Your task to perform on an android device: turn on data saver in the chrome app Image 0: 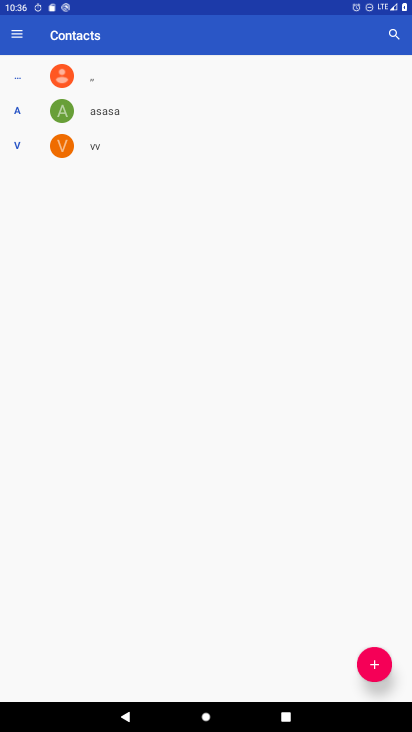
Step 0: press home button
Your task to perform on an android device: turn on data saver in the chrome app Image 1: 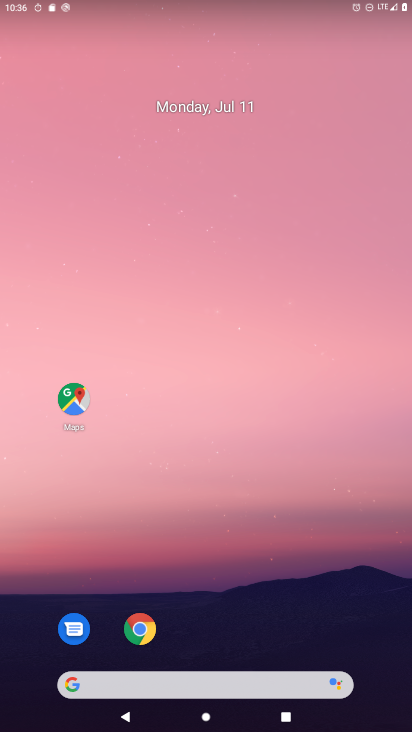
Step 1: click (141, 630)
Your task to perform on an android device: turn on data saver in the chrome app Image 2: 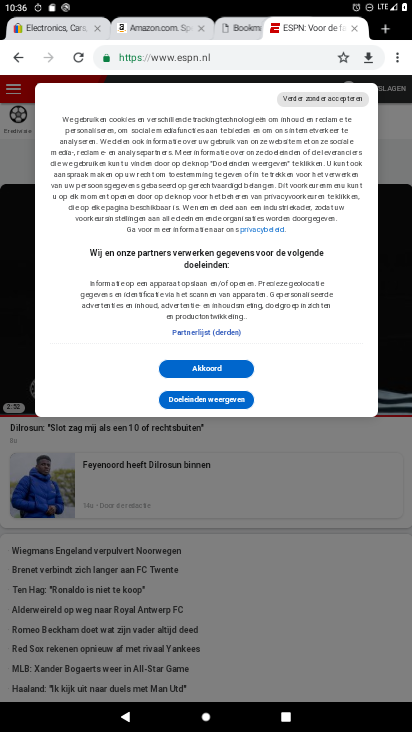
Step 2: click (399, 65)
Your task to perform on an android device: turn on data saver in the chrome app Image 3: 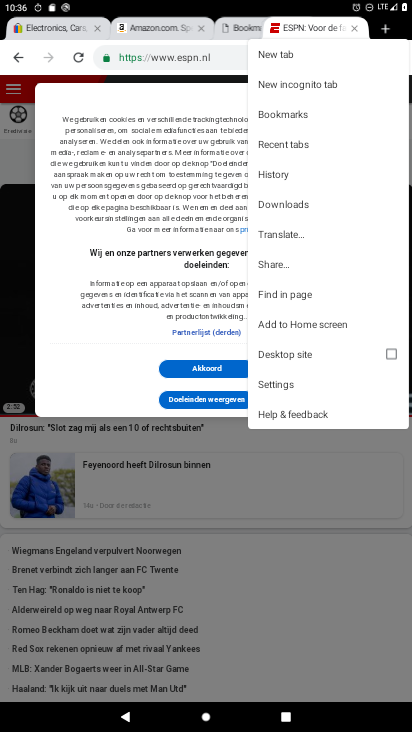
Step 3: click (286, 383)
Your task to perform on an android device: turn on data saver in the chrome app Image 4: 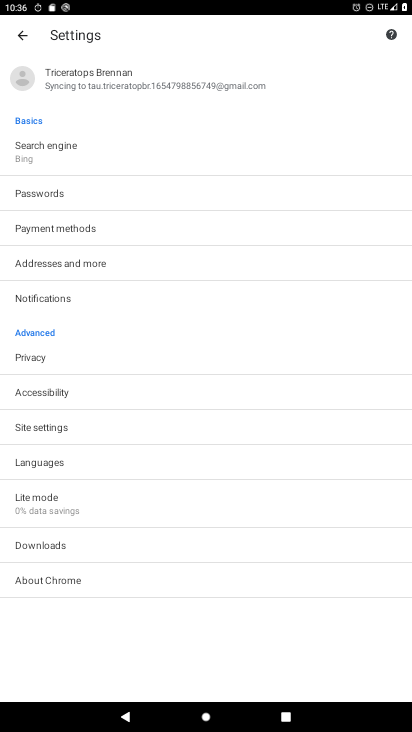
Step 4: click (88, 505)
Your task to perform on an android device: turn on data saver in the chrome app Image 5: 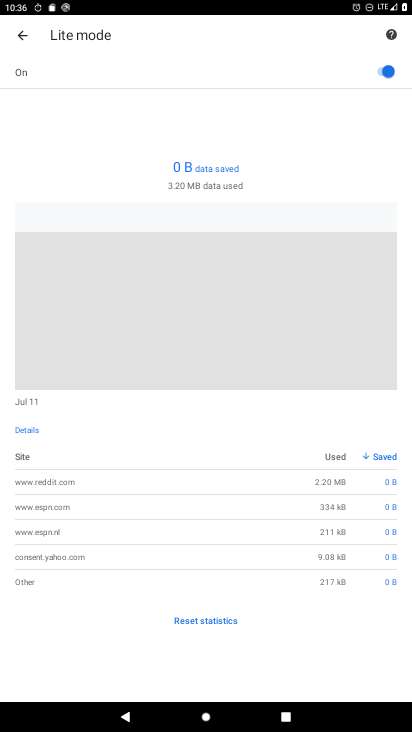
Step 5: task complete